Your task to perform on an android device: Open Google Maps Image 0: 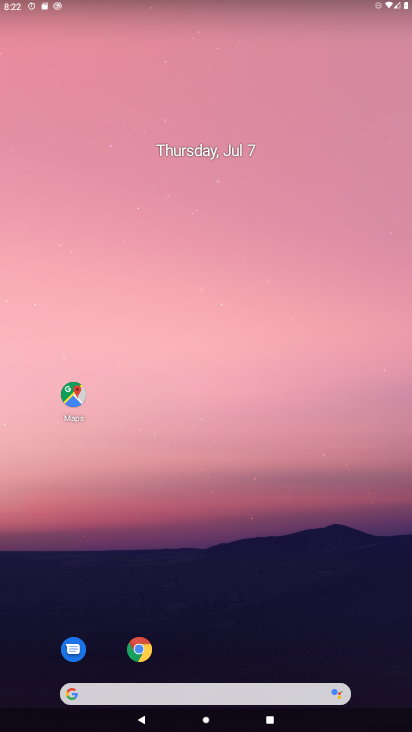
Step 0: click (70, 391)
Your task to perform on an android device: Open Google Maps Image 1: 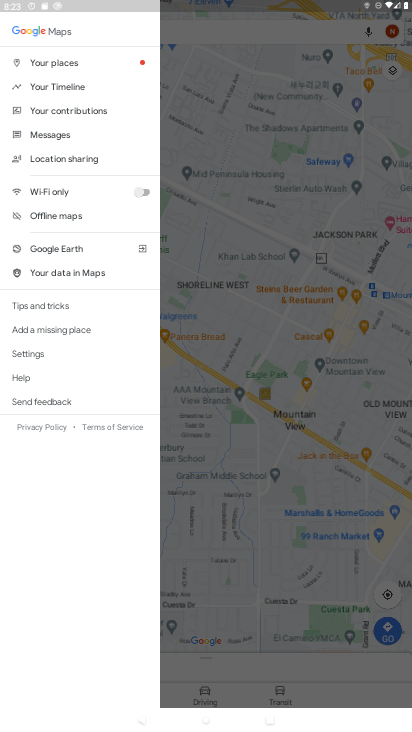
Step 1: click (232, 403)
Your task to perform on an android device: Open Google Maps Image 2: 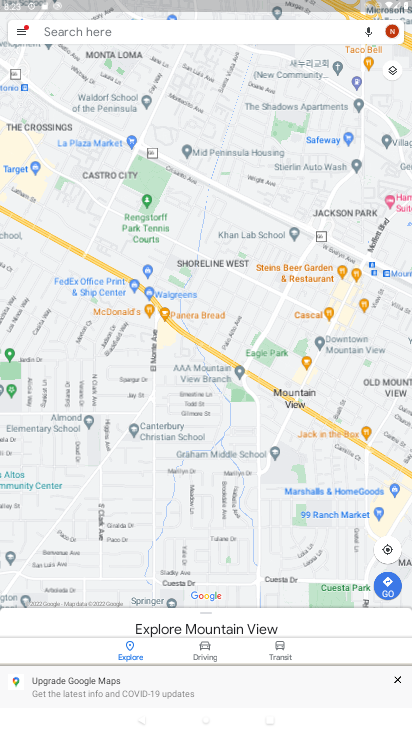
Step 2: drag from (233, 263) to (137, 482)
Your task to perform on an android device: Open Google Maps Image 3: 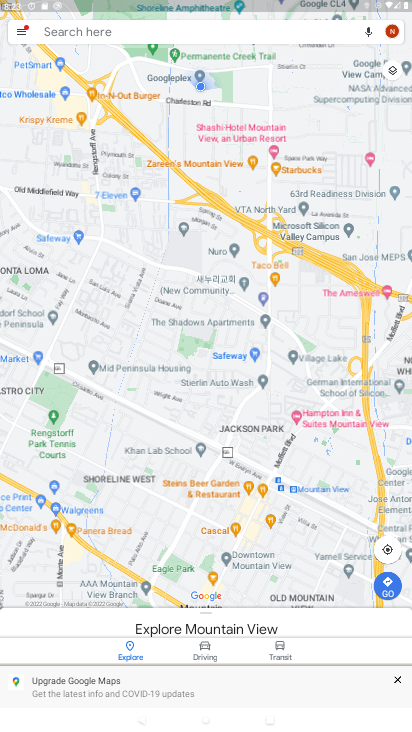
Step 3: click (195, 646)
Your task to perform on an android device: Open Google Maps Image 4: 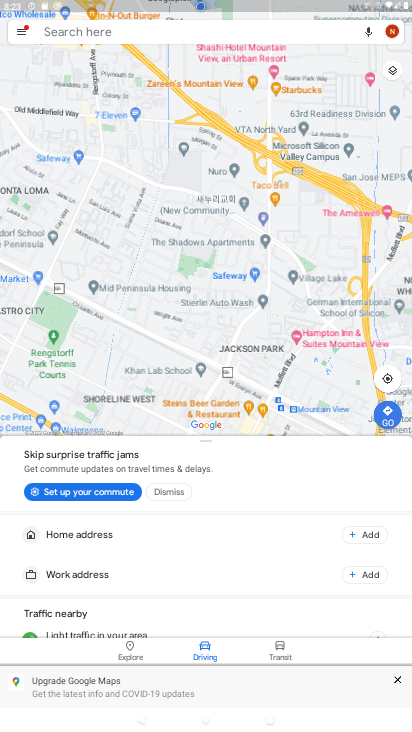
Step 4: click (275, 651)
Your task to perform on an android device: Open Google Maps Image 5: 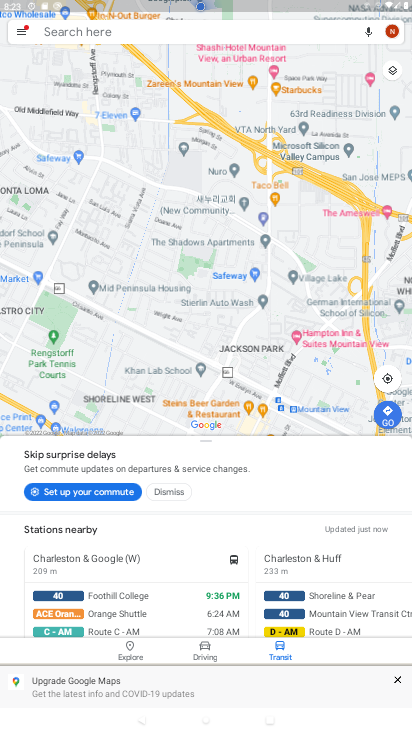
Step 5: task complete